Your task to perform on an android device: Open Google Chrome and open the bookmarks view Image 0: 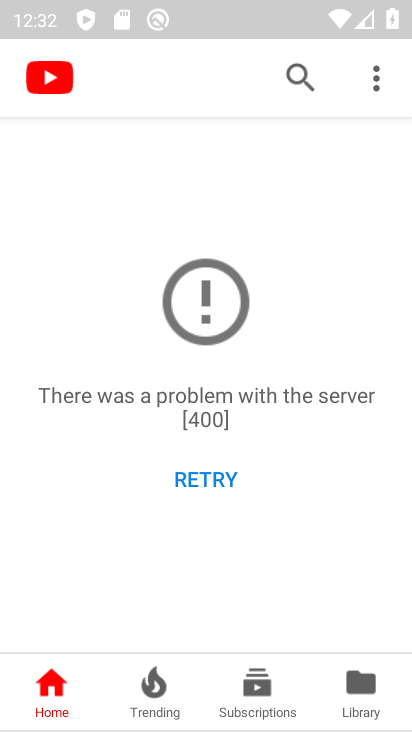
Step 0: press back button
Your task to perform on an android device: Open Google Chrome and open the bookmarks view Image 1: 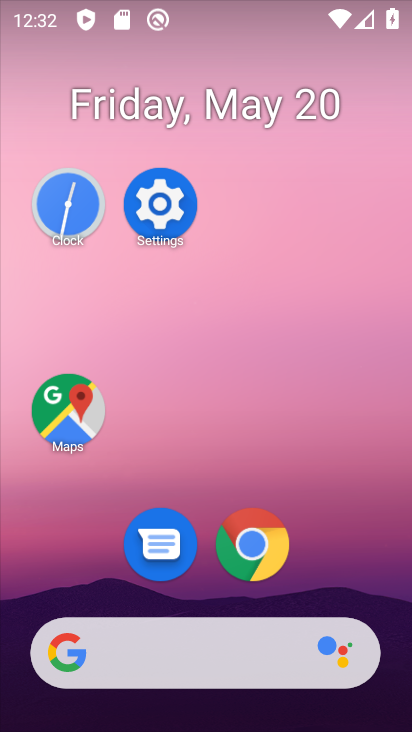
Step 1: click (280, 566)
Your task to perform on an android device: Open Google Chrome and open the bookmarks view Image 2: 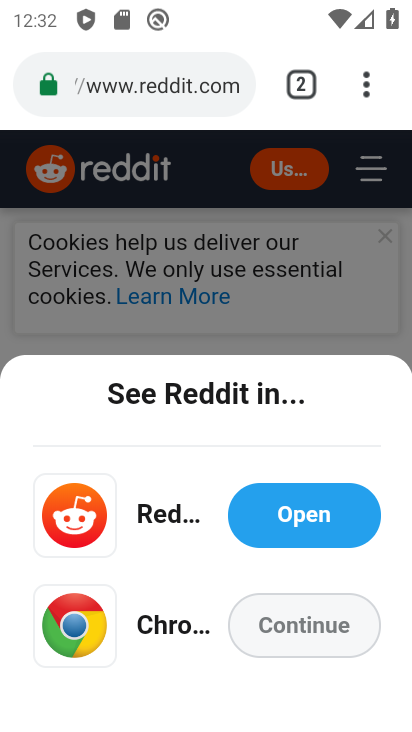
Step 2: click (364, 87)
Your task to perform on an android device: Open Google Chrome and open the bookmarks view Image 3: 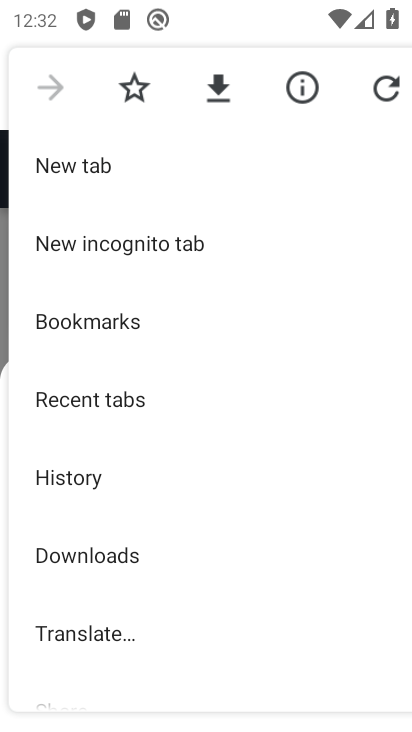
Step 3: click (134, 322)
Your task to perform on an android device: Open Google Chrome and open the bookmarks view Image 4: 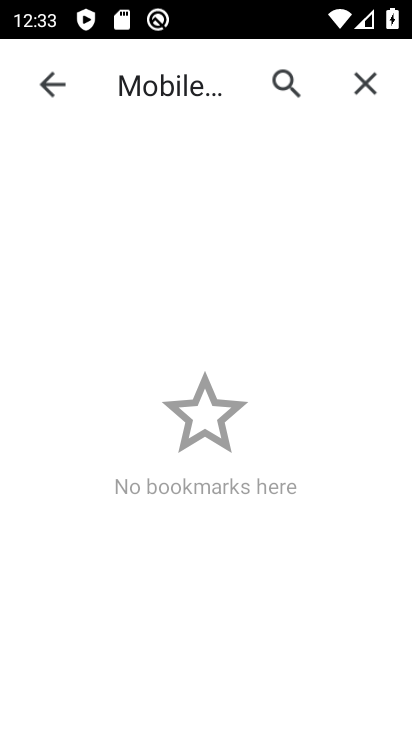
Step 4: task complete